Your task to perform on an android device: Find coffee shops on Maps Image 0: 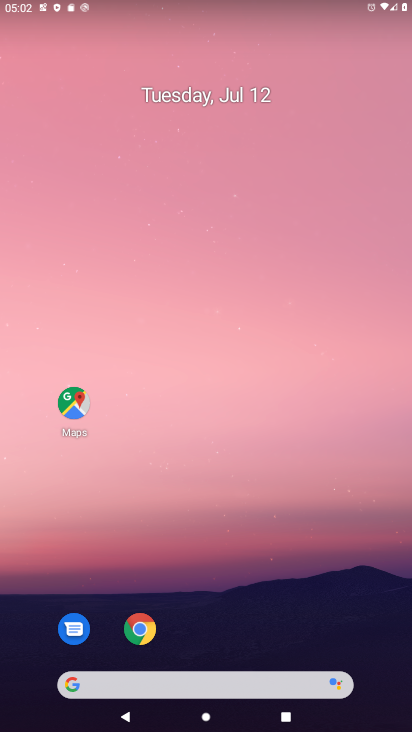
Step 0: drag from (211, 640) to (257, 412)
Your task to perform on an android device: Find coffee shops on Maps Image 1: 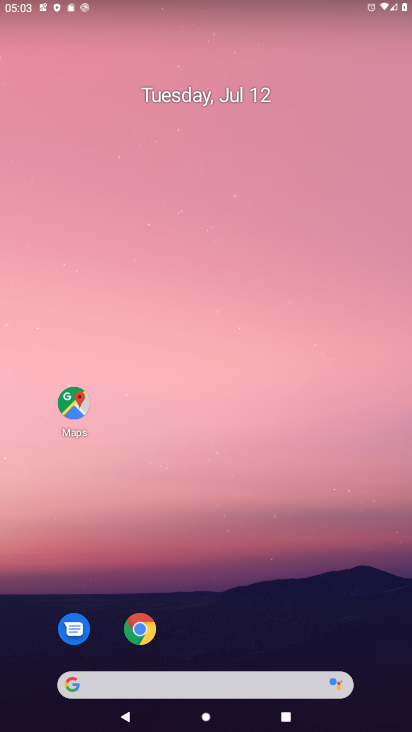
Step 1: drag from (281, 620) to (315, 494)
Your task to perform on an android device: Find coffee shops on Maps Image 2: 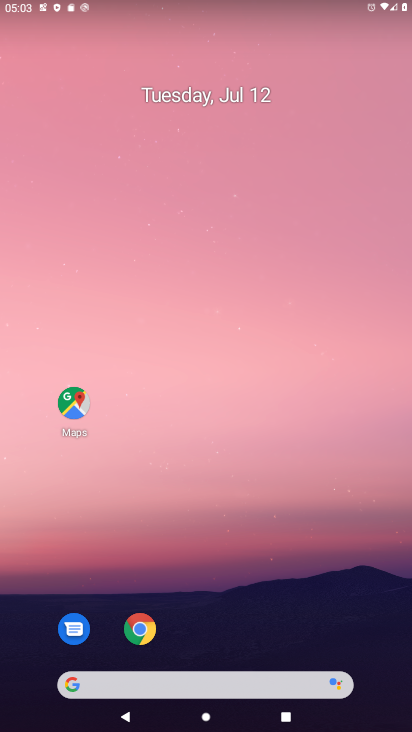
Step 2: drag from (286, 635) to (361, 132)
Your task to perform on an android device: Find coffee shops on Maps Image 3: 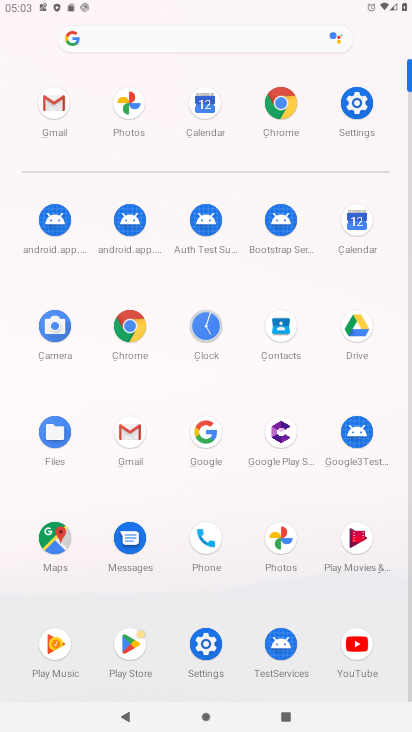
Step 3: click (54, 544)
Your task to perform on an android device: Find coffee shops on Maps Image 4: 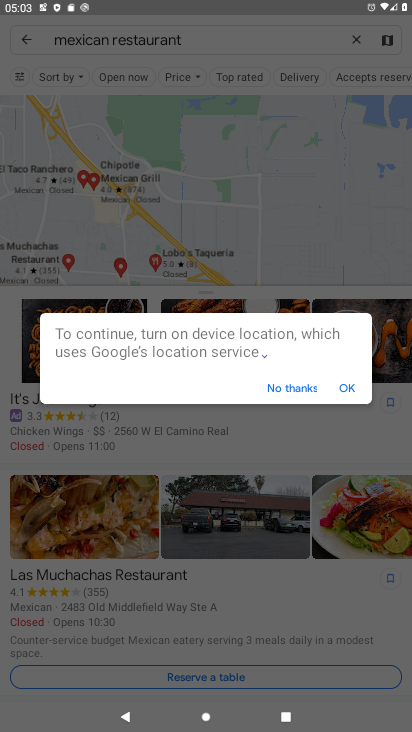
Step 4: press back button
Your task to perform on an android device: Find coffee shops on Maps Image 5: 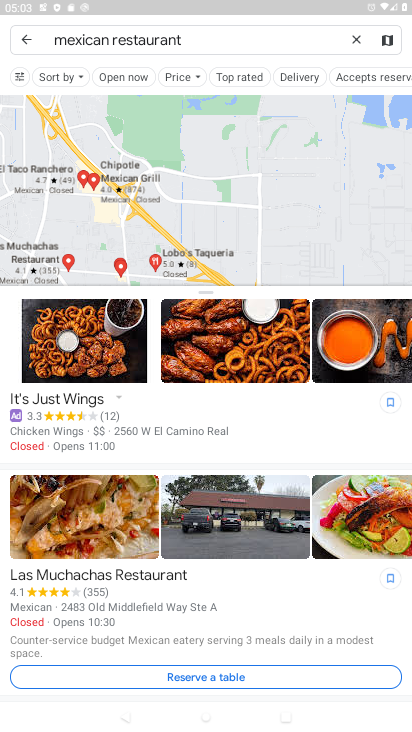
Step 5: click (356, 41)
Your task to perform on an android device: Find coffee shops on Maps Image 6: 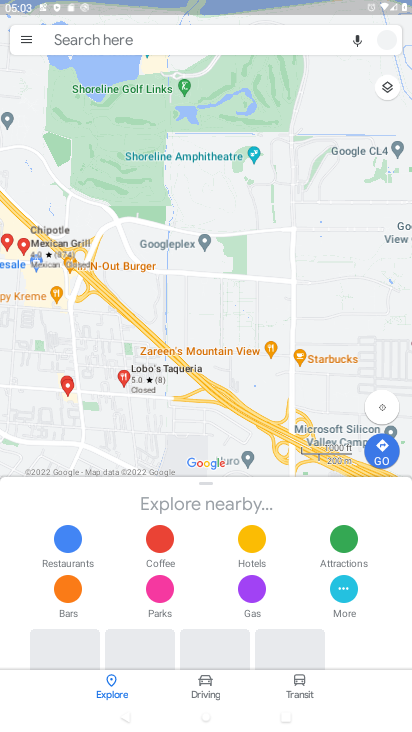
Step 6: click (100, 44)
Your task to perform on an android device: Find coffee shops on Maps Image 7: 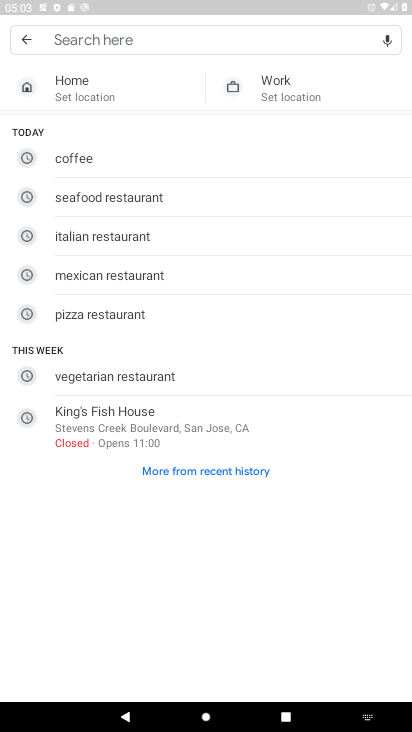
Step 7: type "coffee shops"
Your task to perform on an android device: Find coffee shops on Maps Image 8: 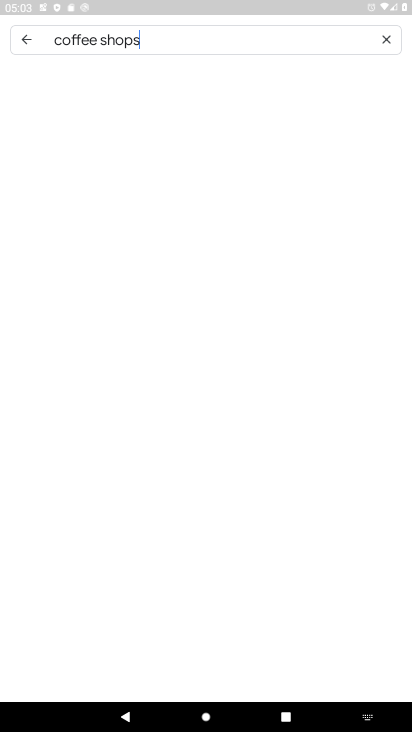
Step 8: press enter
Your task to perform on an android device: Find coffee shops on Maps Image 9: 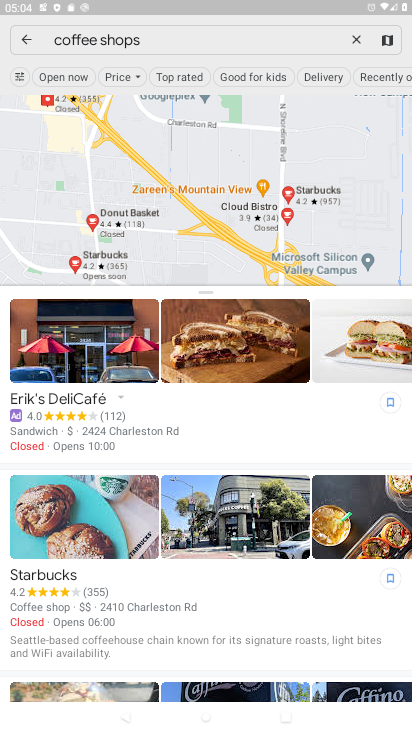
Step 9: task complete